Your task to perform on an android device: move an email to a new category in the gmail app Image 0: 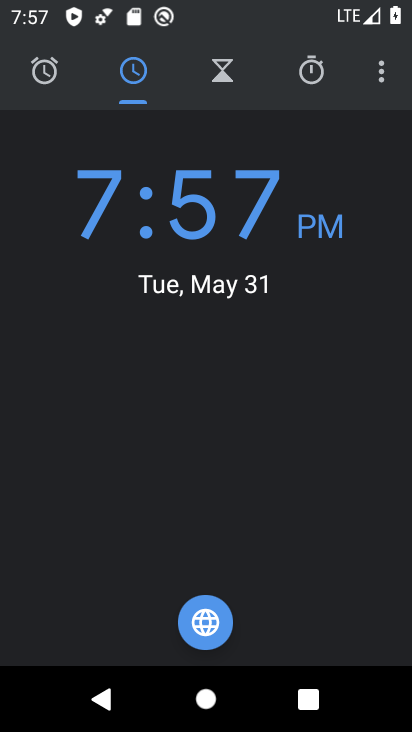
Step 0: press home button
Your task to perform on an android device: move an email to a new category in the gmail app Image 1: 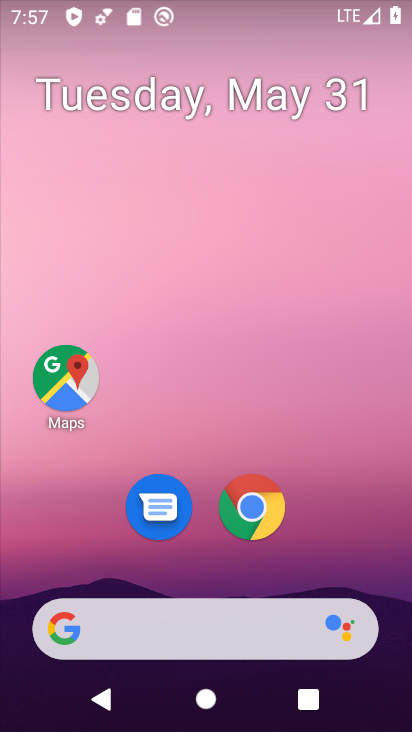
Step 1: drag from (368, 575) to (310, 6)
Your task to perform on an android device: move an email to a new category in the gmail app Image 2: 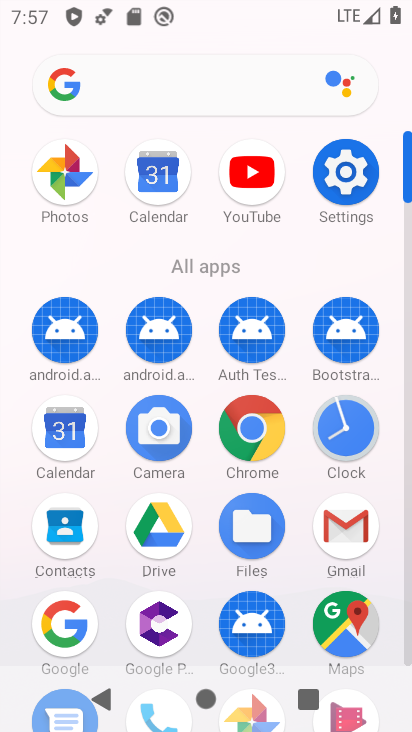
Step 2: click (336, 518)
Your task to perform on an android device: move an email to a new category in the gmail app Image 3: 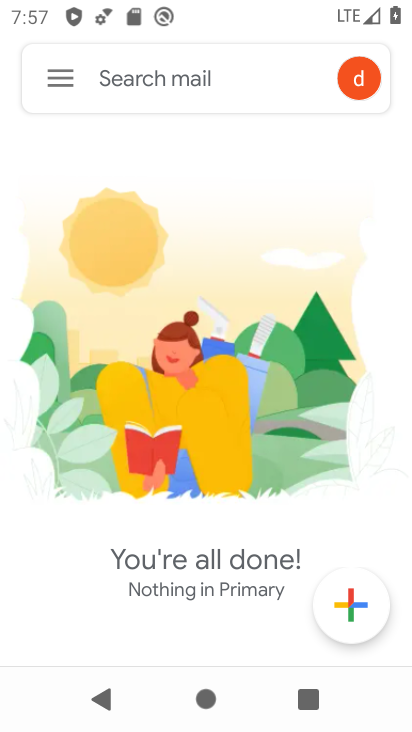
Step 3: click (54, 78)
Your task to perform on an android device: move an email to a new category in the gmail app Image 4: 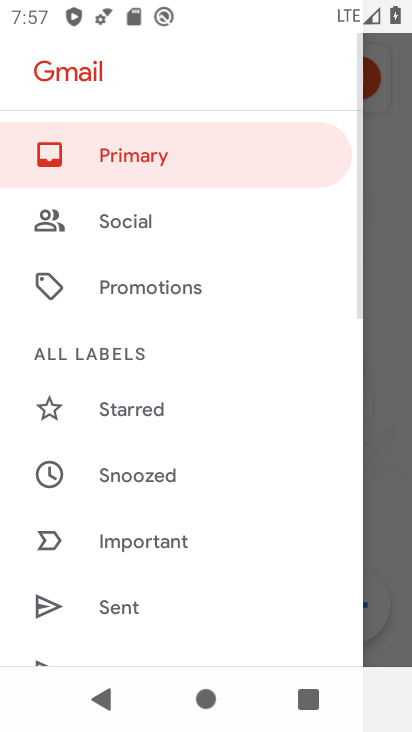
Step 4: drag from (255, 512) to (211, 177)
Your task to perform on an android device: move an email to a new category in the gmail app Image 5: 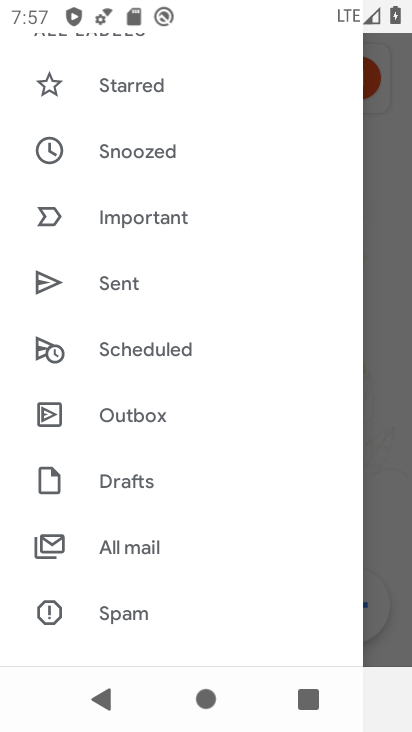
Step 5: click (140, 549)
Your task to perform on an android device: move an email to a new category in the gmail app Image 6: 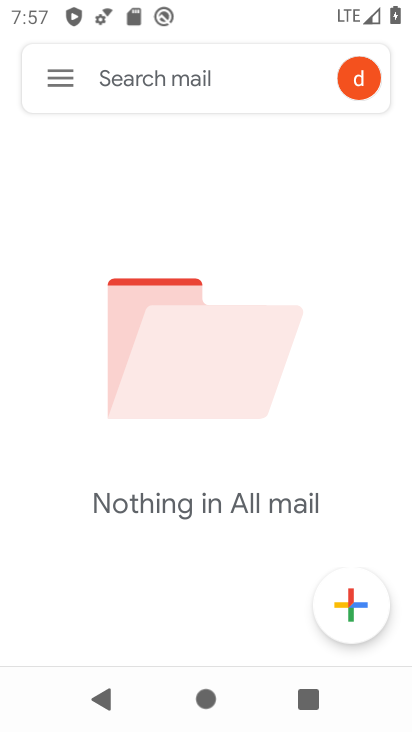
Step 6: task complete